Your task to perform on an android device: change the clock display to analog Image 0: 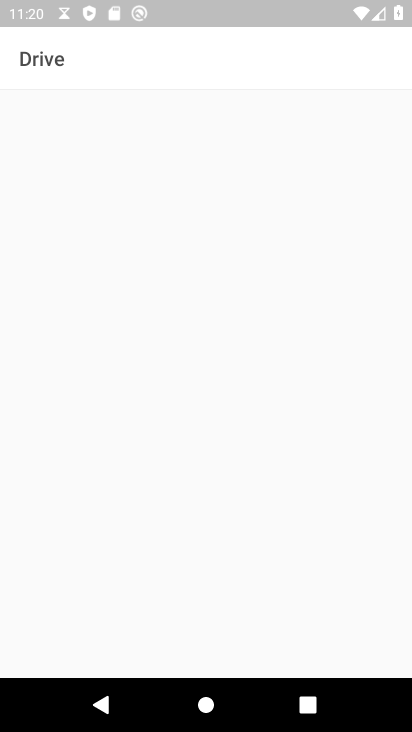
Step 0: press home button
Your task to perform on an android device: change the clock display to analog Image 1: 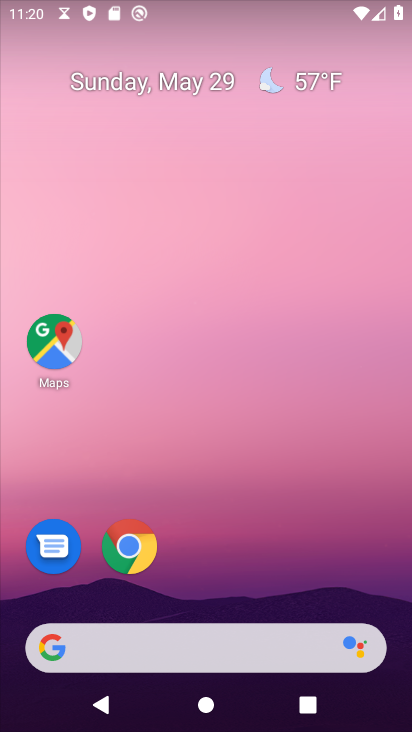
Step 1: drag from (231, 572) to (313, 225)
Your task to perform on an android device: change the clock display to analog Image 2: 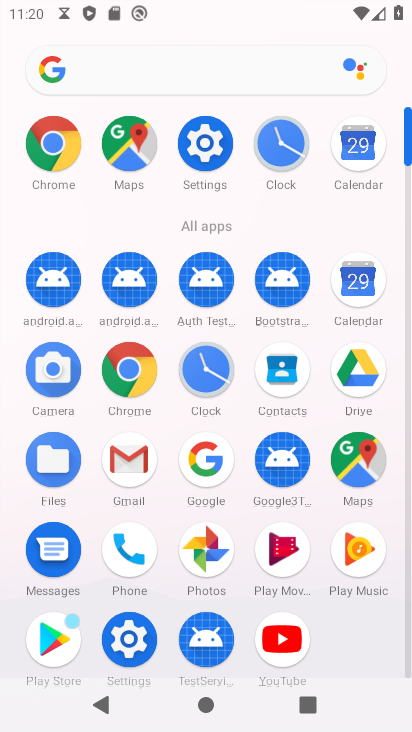
Step 2: click (288, 160)
Your task to perform on an android device: change the clock display to analog Image 3: 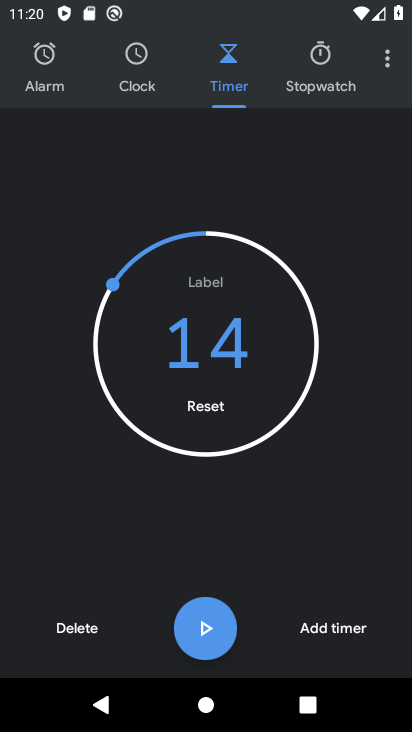
Step 3: click (389, 67)
Your task to perform on an android device: change the clock display to analog Image 4: 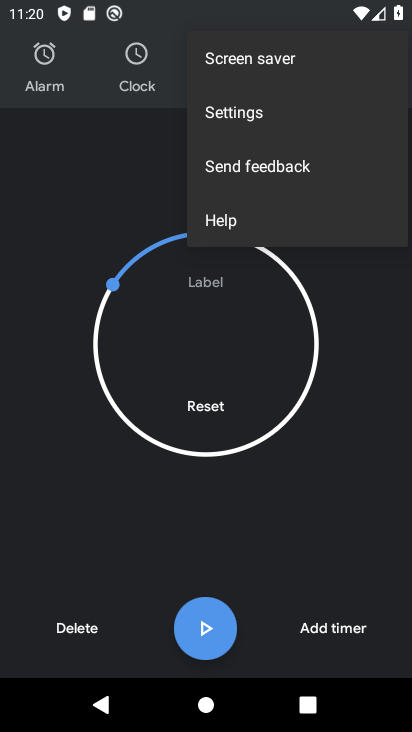
Step 4: click (246, 126)
Your task to perform on an android device: change the clock display to analog Image 5: 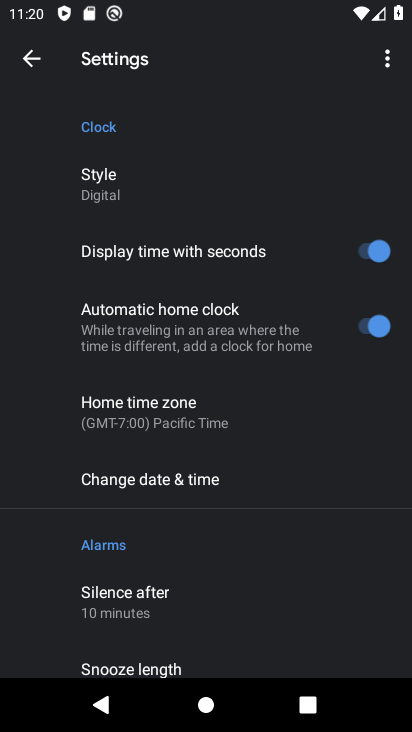
Step 5: click (102, 194)
Your task to perform on an android device: change the clock display to analog Image 6: 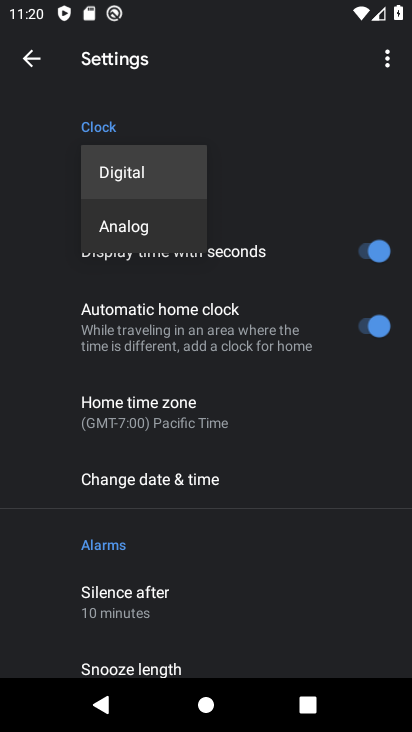
Step 6: click (124, 229)
Your task to perform on an android device: change the clock display to analog Image 7: 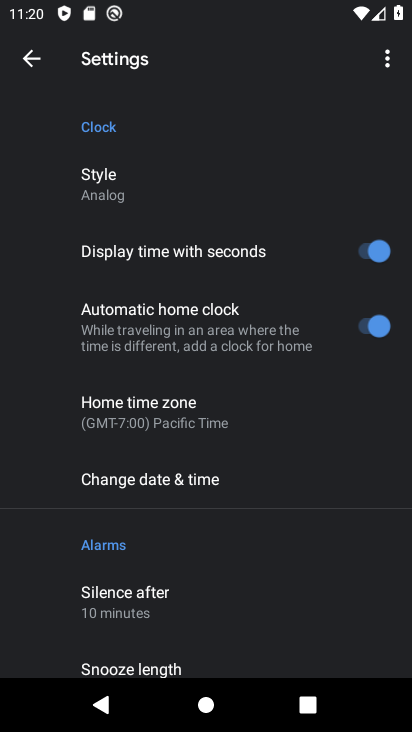
Step 7: task complete